Your task to perform on an android device: turn off picture-in-picture Image 0: 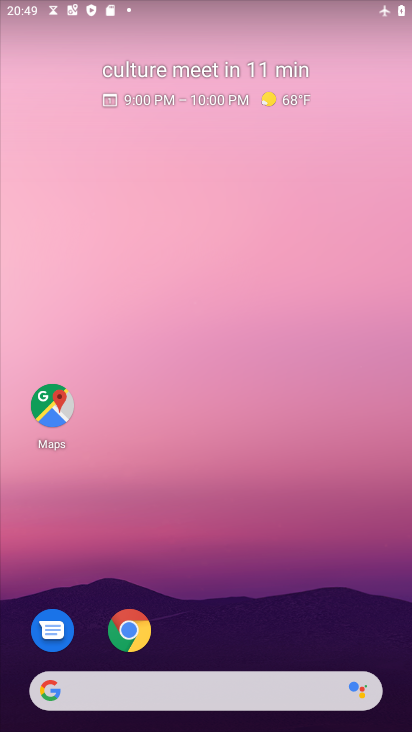
Step 0: click (128, 632)
Your task to perform on an android device: turn off picture-in-picture Image 1: 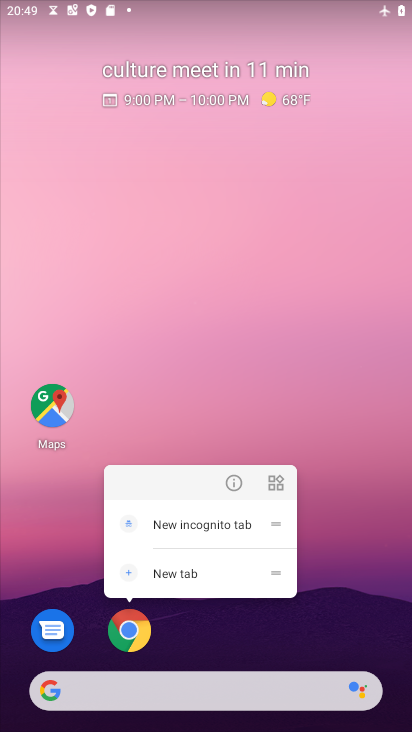
Step 1: click (234, 485)
Your task to perform on an android device: turn off picture-in-picture Image 2: 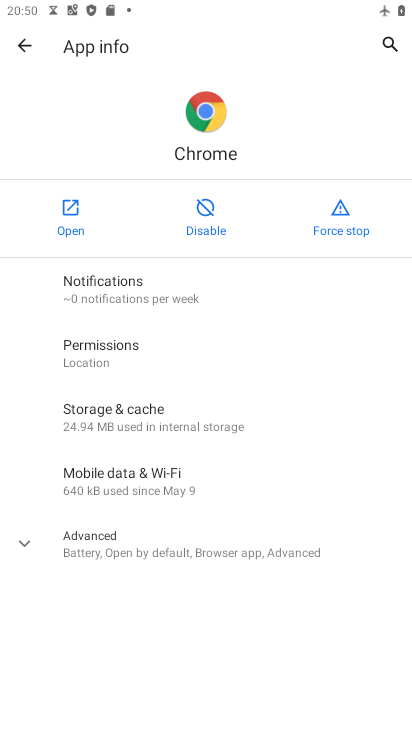
Step 2: click (159, 556)
Your task to perform on an android device: turn off picture-in-picture Image 3: 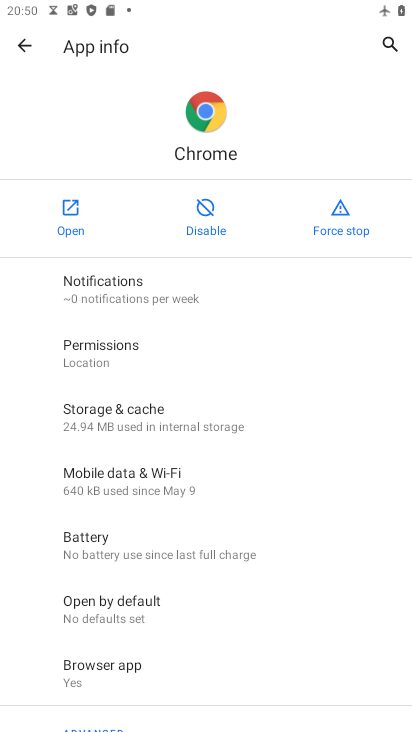
Step 3: drag from (119, 636) to (110, 506)
Your task to perform on an android device: turn off picture-in-picture Image 4: 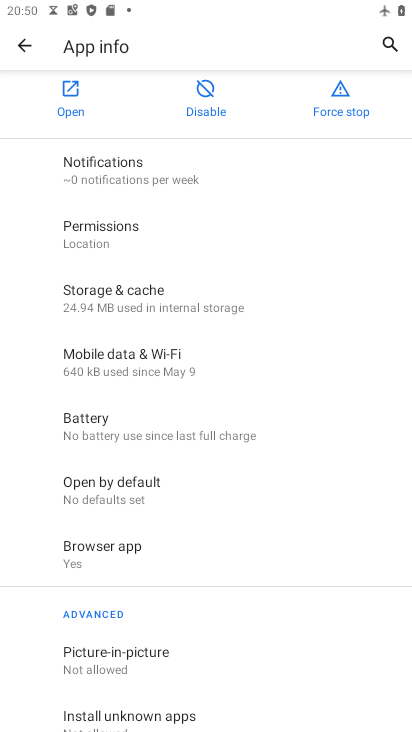
Step 4: drag from (154, 624) to (170, 471)
Your task to perform on an android device: turn off picture-in-picture Image 5: 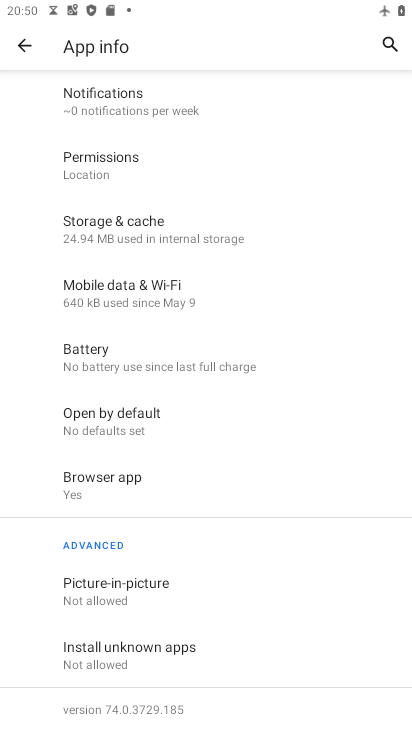
Step 5: click (147, 587)
Your task to perform on an android device: turn off picture-in-picture Image 6: 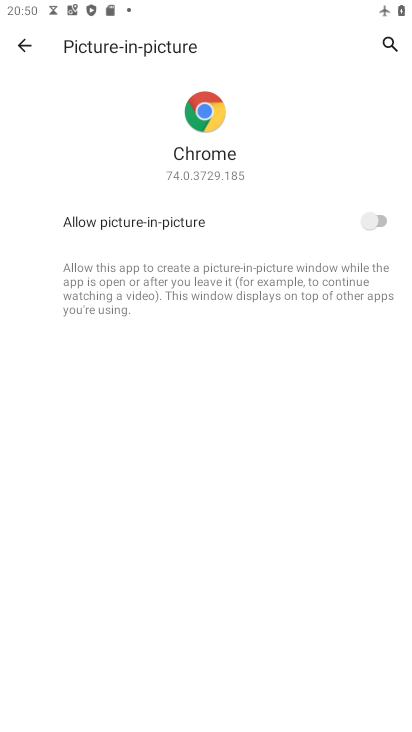
Step 6: task complete